Your task to perform on an android device: toggle notifications settings in the gmail app Image 0: 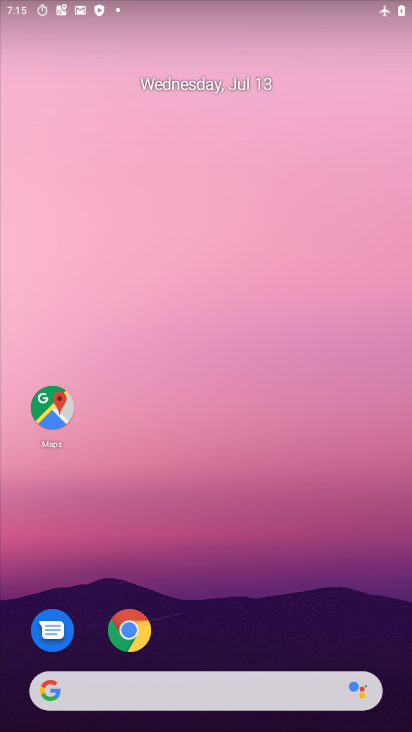
Step 0: drag from (323, 618) to (323, 58)
Your task to perform on an android device: toggle notifications settings in the gmail app Image 1: 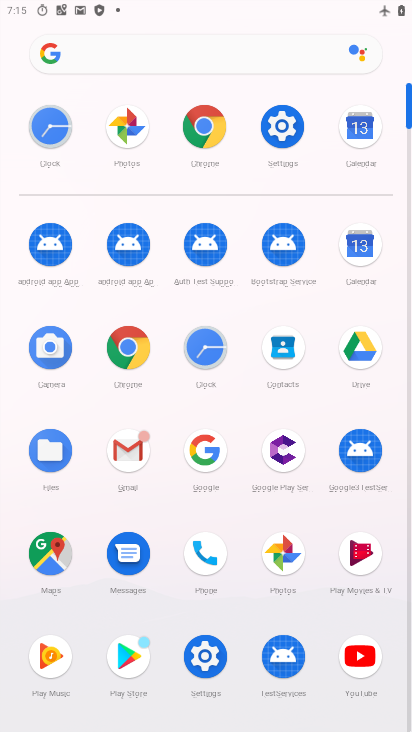
Step 1: click (135, 449)
Your task to perform on an android device: toggle notifications settings in the gmail app Image 2: 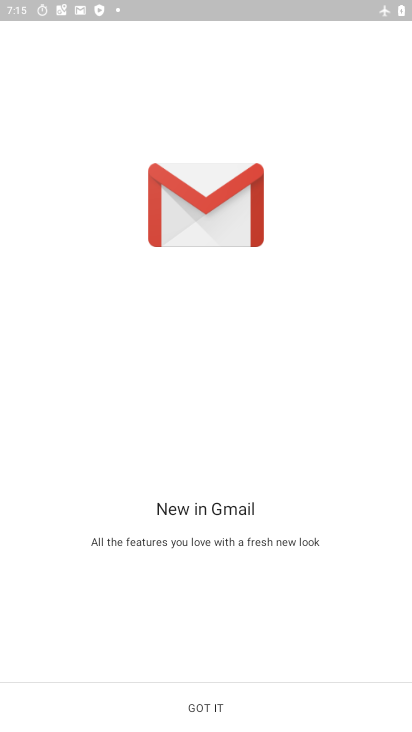
Step 2: click (183, 687)
Your task to perform on an android device: toggle notifications settings in the gmail app Image 3: 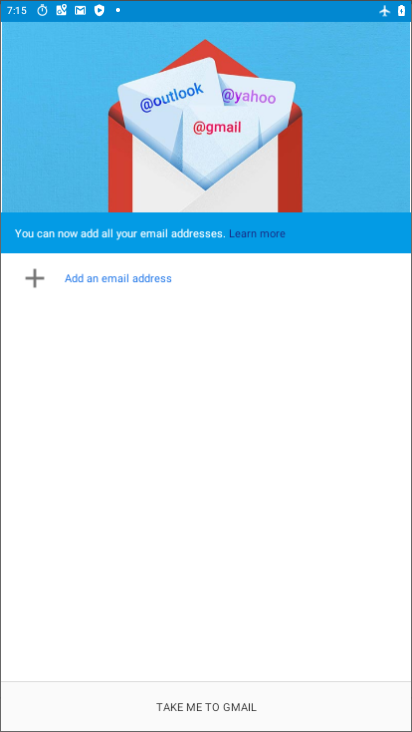
Step 3: click (187, 692)
Your task to perform on an android device: toggle notifications settings in the gmail app Image 4: 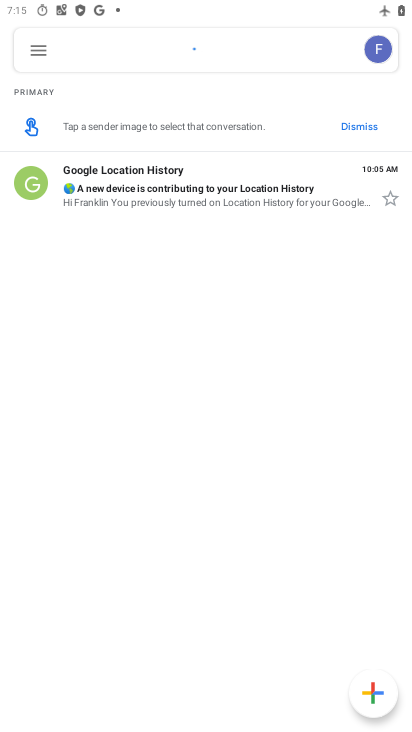
Step 4: click (24, 36)
Your task to perform on an android device: toggle notifications settings in the gmail app Image 5: 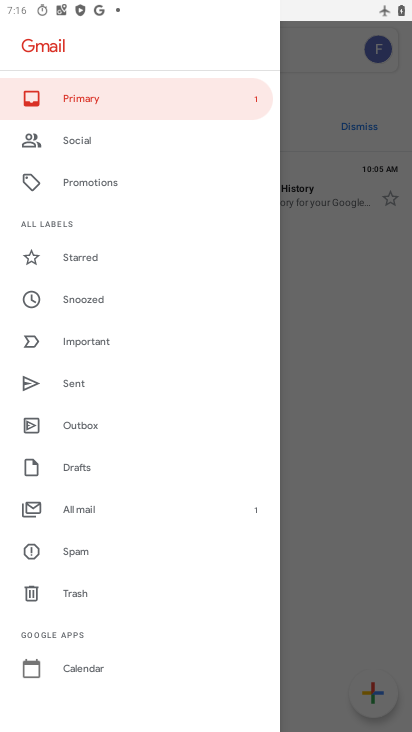
Step 5: drag from (88, 635) to (227, 370)
Your task to perform on an android device: toggle notifications settings in the gmail app Image 6: 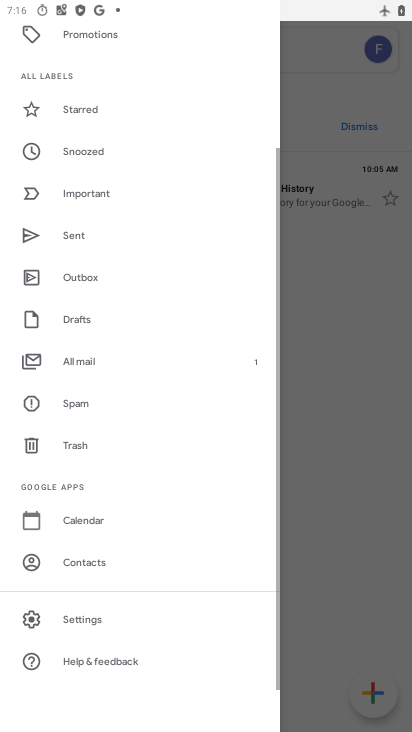
Step 6: click (88, 627)
Your task to perform on an android device: toggle notifications settings in the gmail app Image 7: 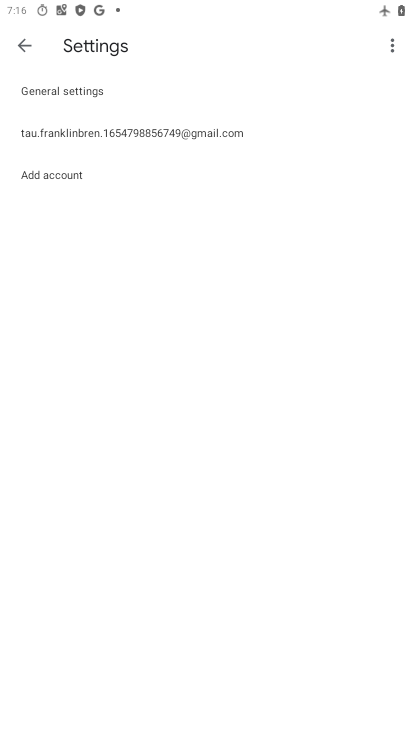
Step 7: click (141, 128)
Your task to perform on an android device: toggle notifications settings in the gmail app Image 8: 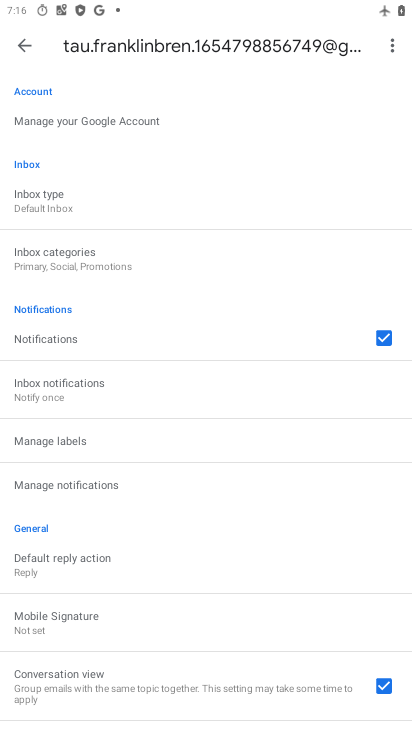
Step 8: click (87, 341)
Your task to perform on an android device: toggle notifications settings in the gmail app Image 9: 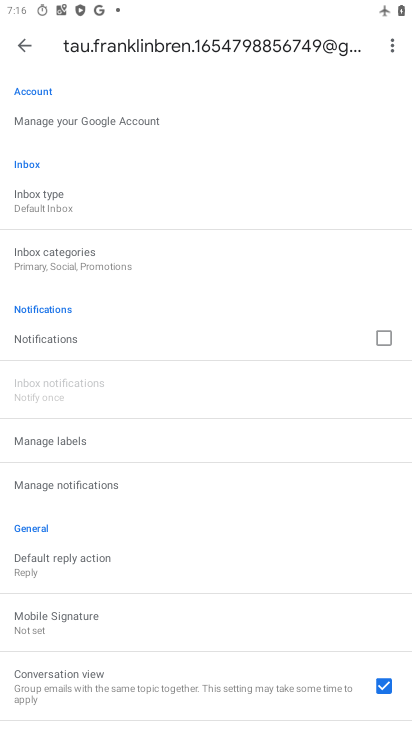
Step 9: task complete